Your task to perform on an android device: turn off location Image 0: 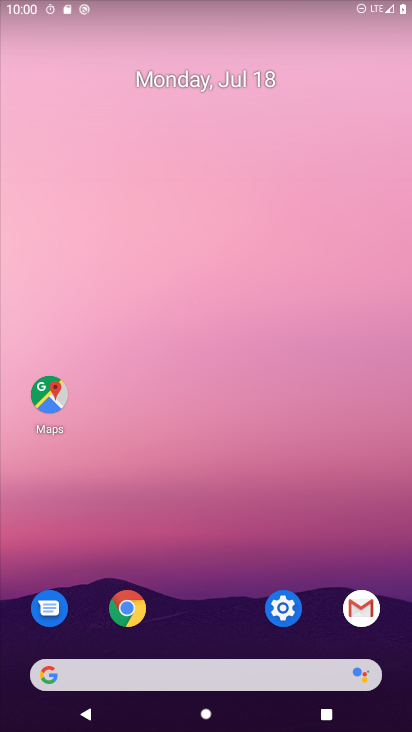
Step 0: click (273, 619)
Your task to perform on an android device: turn off location Image 1: 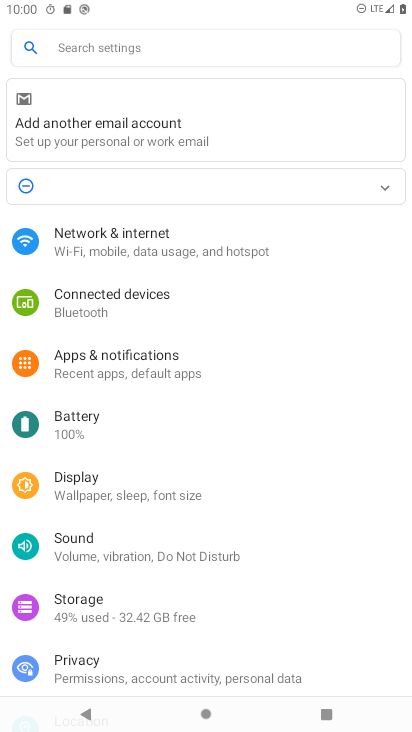
Step 1: drag from (110, 623) to (114, 553)
Your task to perform on an android device: turn off location Image 2: 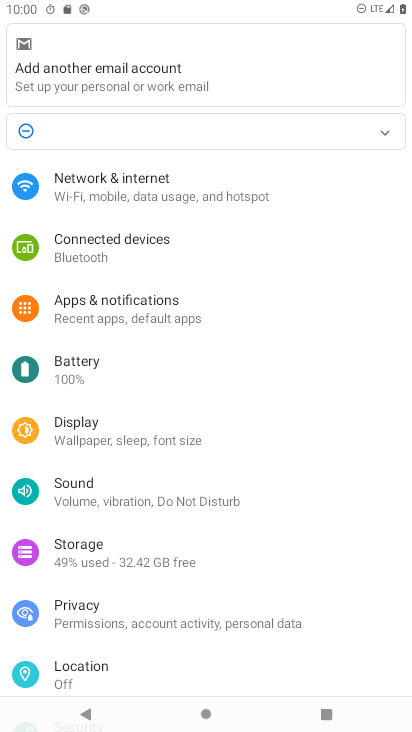
Step 2: click (80, 667)
Your task to perform on an android device: turn off location Image 3: 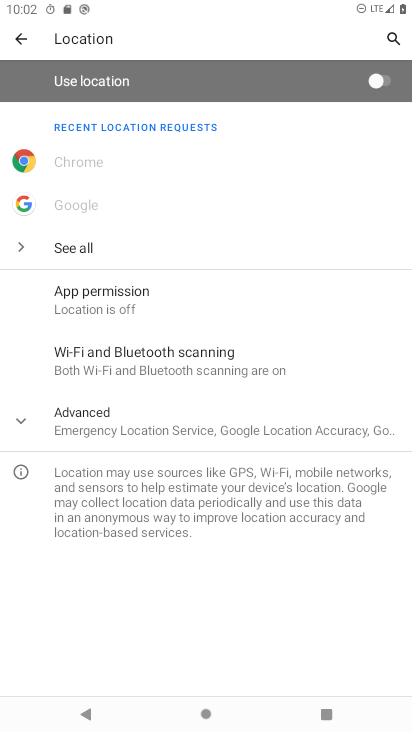
Step 3: task complete